Your task to perform on an android device: set an alarm Image 0: 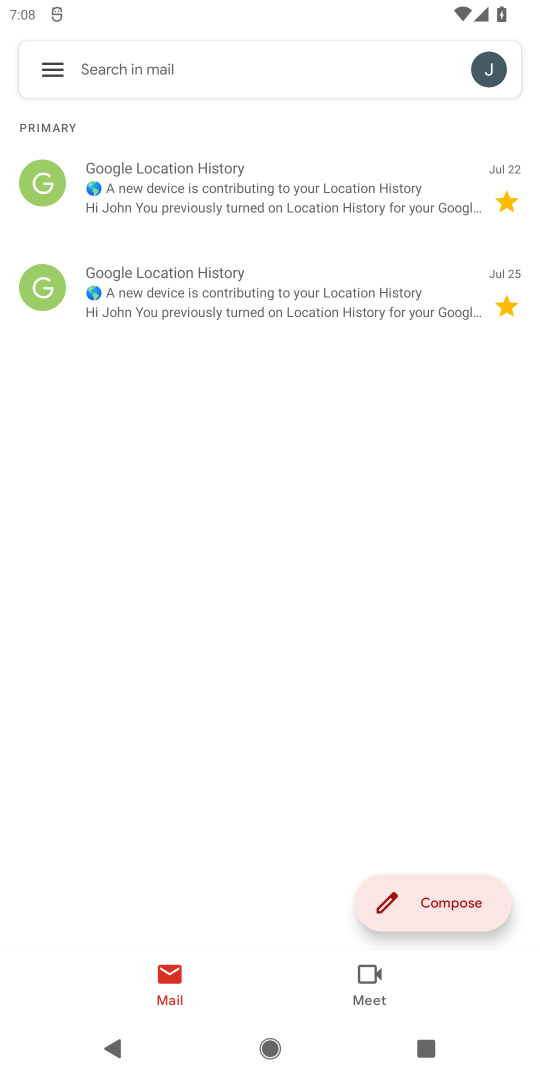
Step 0: press home button
Your task to perform on an android device: set an alarm Image 1: 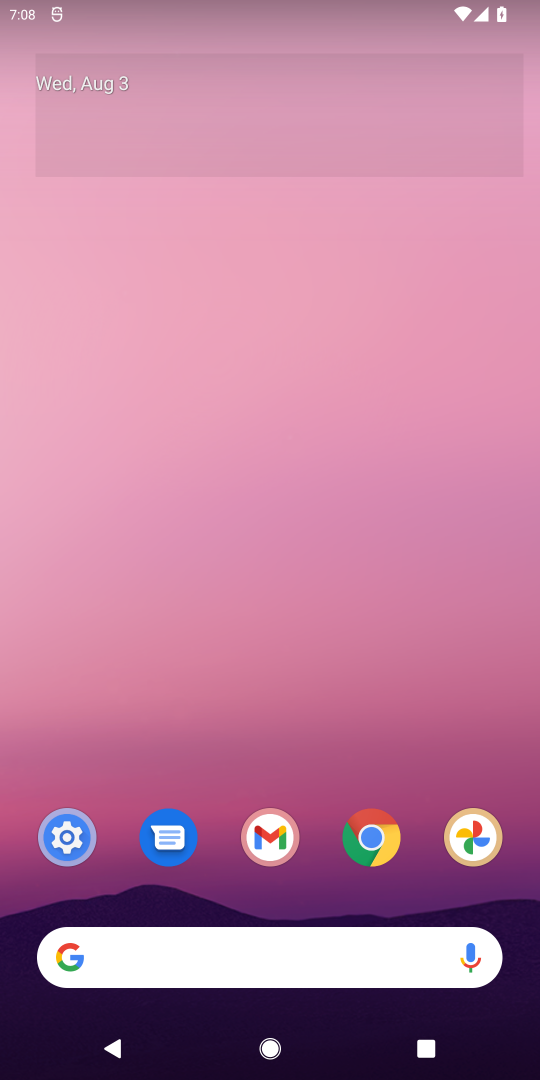
Step 1: drag from (337, 437) to (363, 164)
Your task to perform on an android device: set an alarm Image 2: 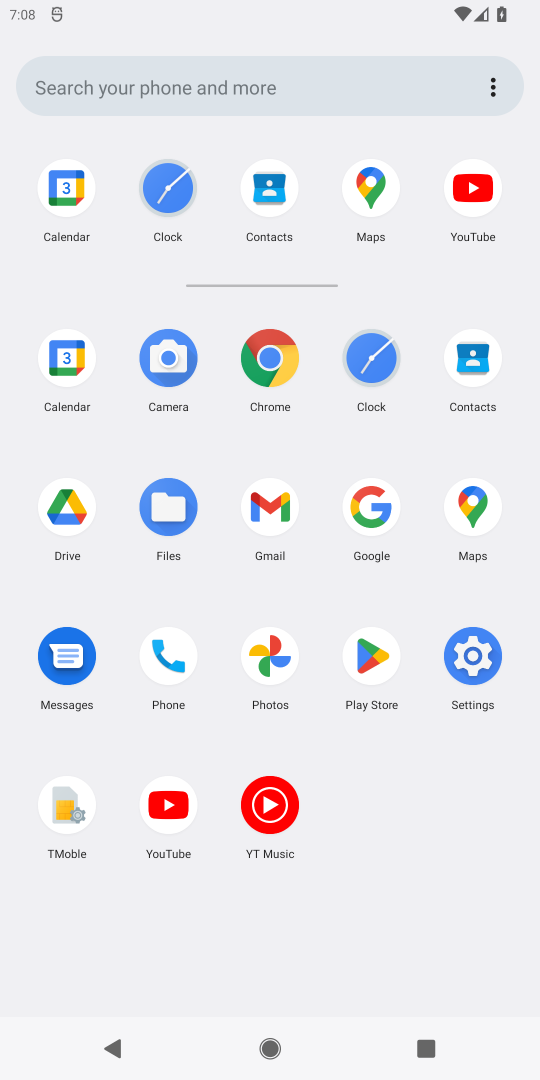
Step 2: click (170, 189)
Your task to perform on an android device: set an alarm Image 3: 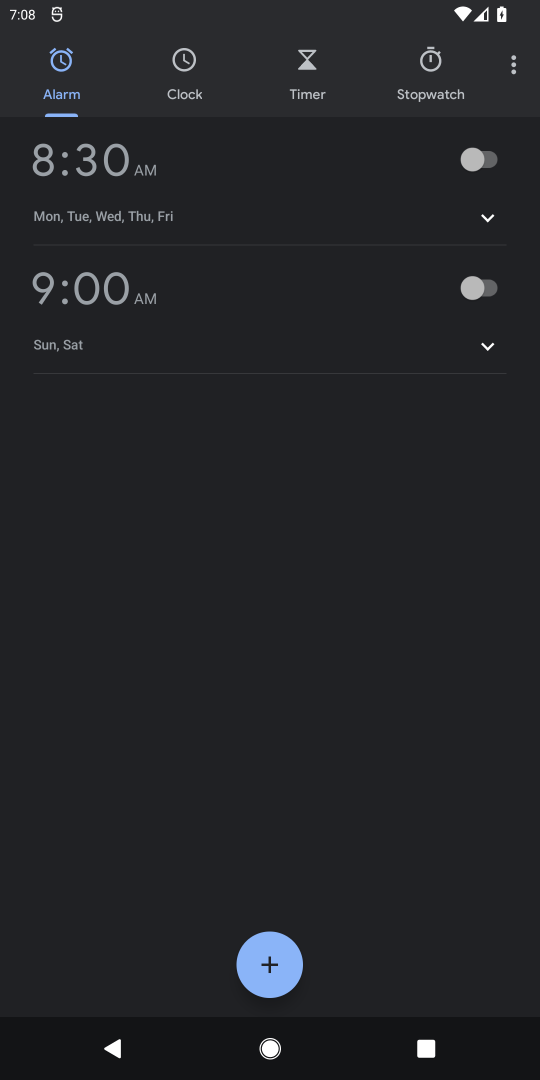
Step 3: click (258, 969)
Your task to perform on an android device: set an alarm Image 4: 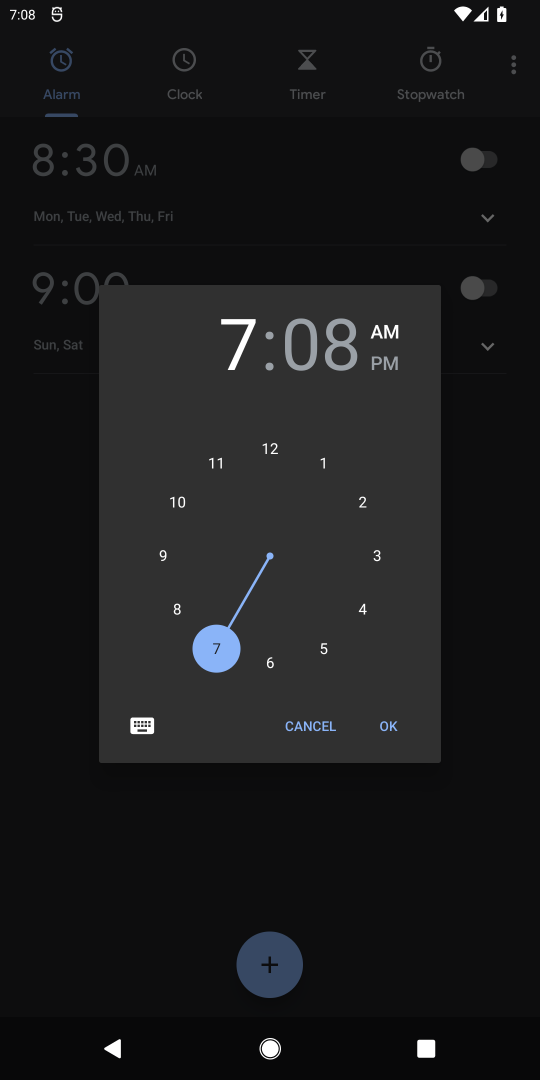
Step 4: click (161, 552)
Your task to perform on an android device: set an alarm Image 5: 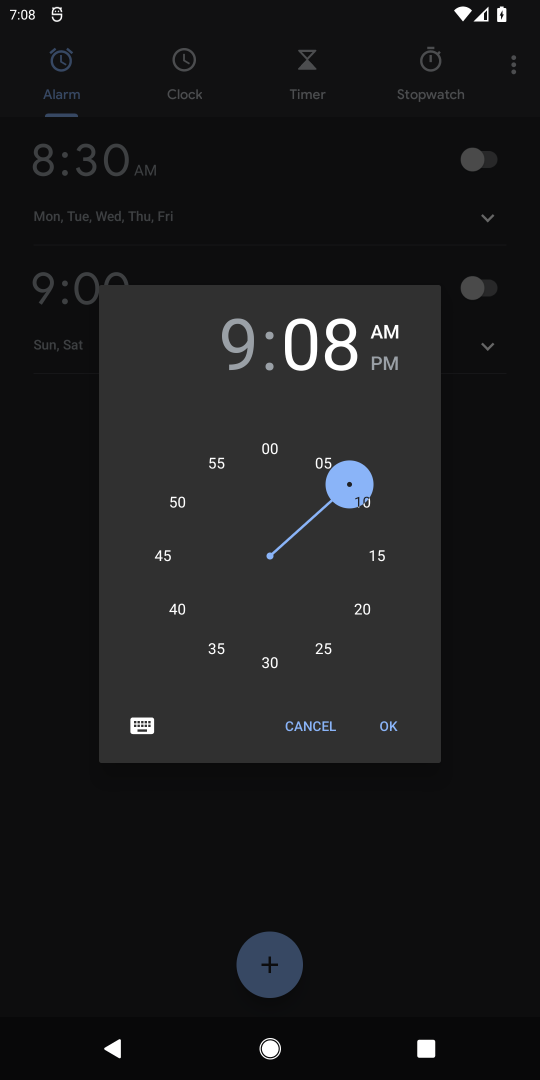
Step 5: click (387, 731)
Your task to perform on an android device: set an alarm Image 6: 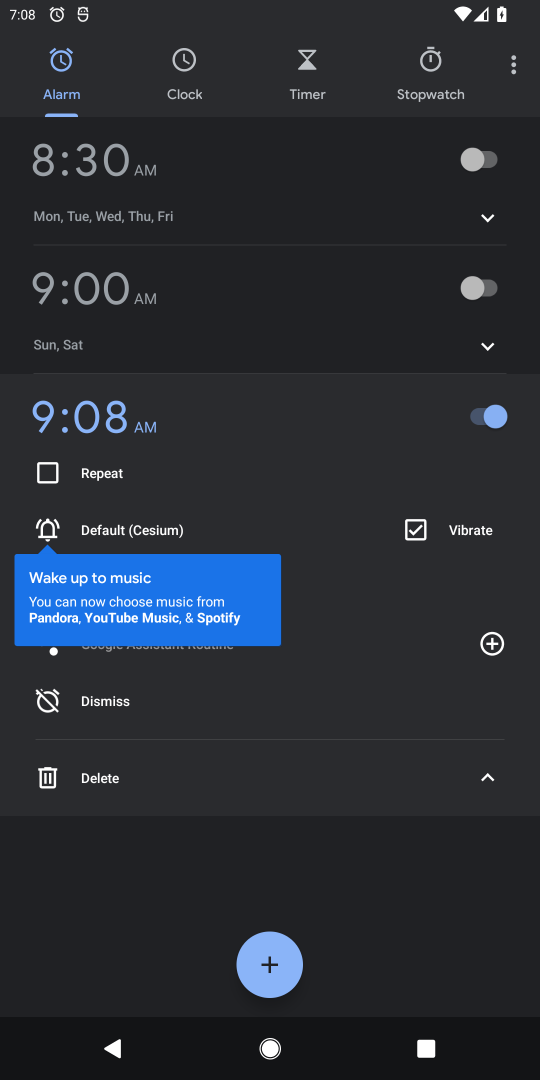
Step 6: task complete